Your task to perform on an android device: toggle show notifications on the lock screen Image 0: 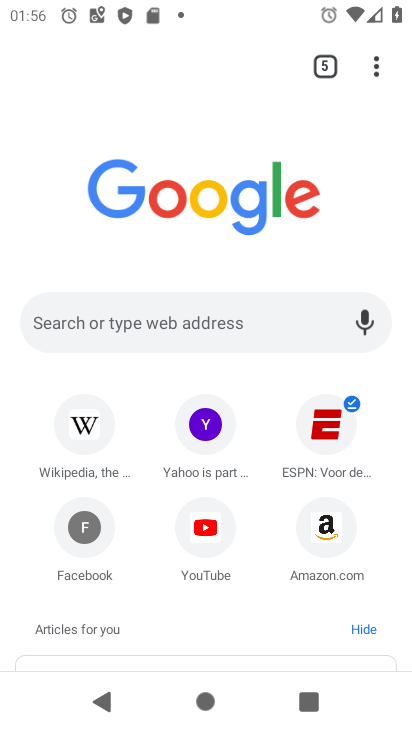
Step 0: press home button
Your task to perform on an android device: toggle show notifications on the lock screen Image 1: 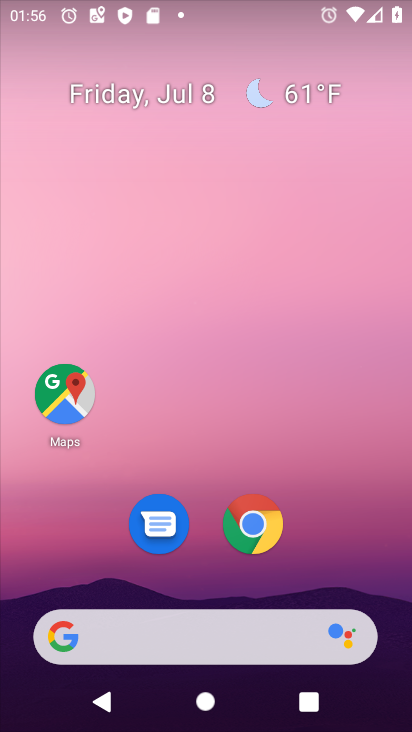
Step 1: drag from (238, 440) to (227, 0)
Your task to perform on an android device: toggle show notifications on the lock screen Image 2: 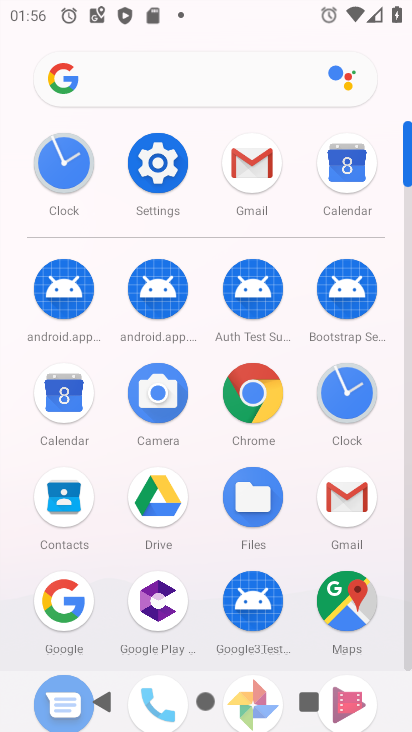
Step 2: click (179, 163)
Your task to perform on an android device: toggle show notifications on the lock screen Image 3: 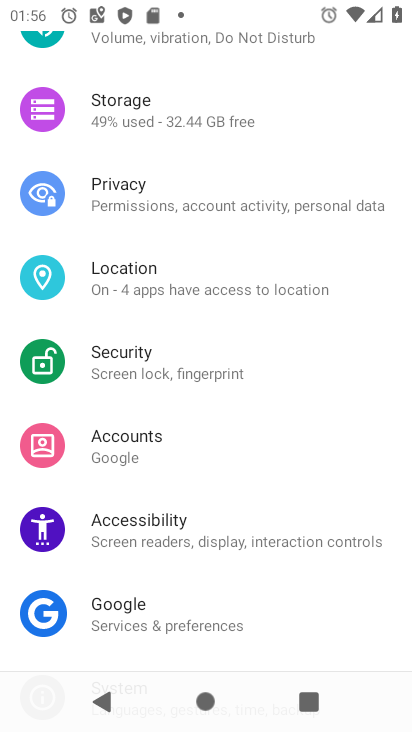
Step 3: drag from (193, 196) to (246, 515)
Your task to perform on an android device: toggle show notifications on the lock screen Image 4: 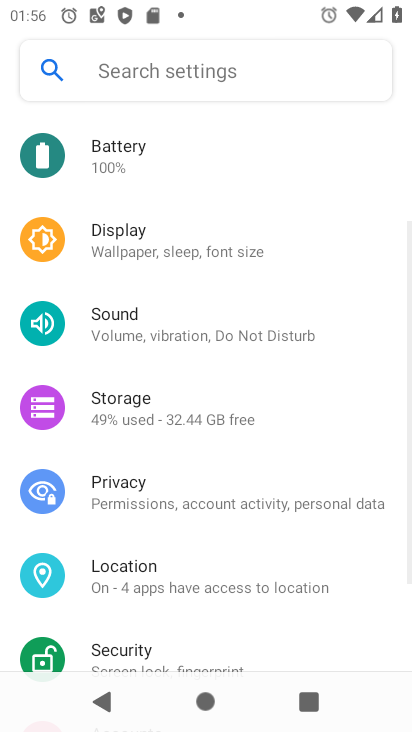
Step 4: drag from (210, 185) to (253, 470)
Your task to perform on an android device: toggle show notifications on the lock screen Image 5: 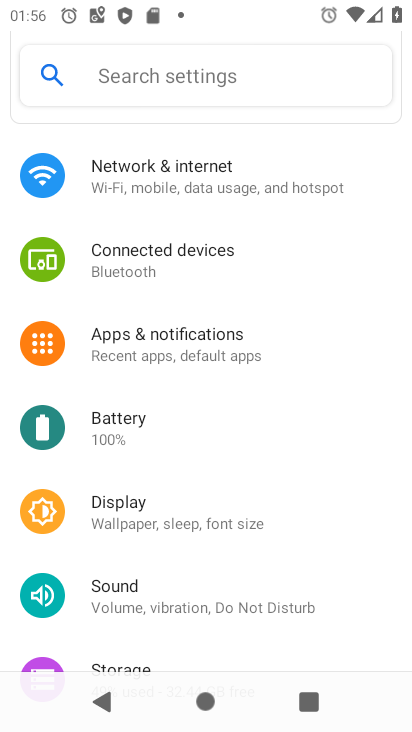
Step 5: click (239, 185)
Your task to perform on an android device: toggle show notifications on the lock screen Image 6: 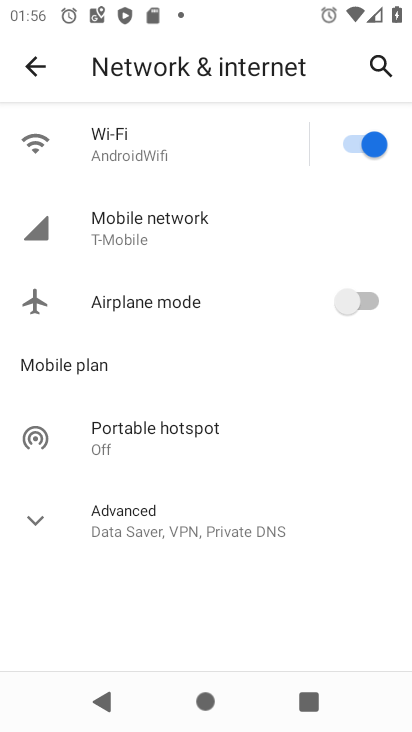
Step 6: click (36, 68)
Your task to perform on an android device: toggle show notifications on the lock screen Image 7: 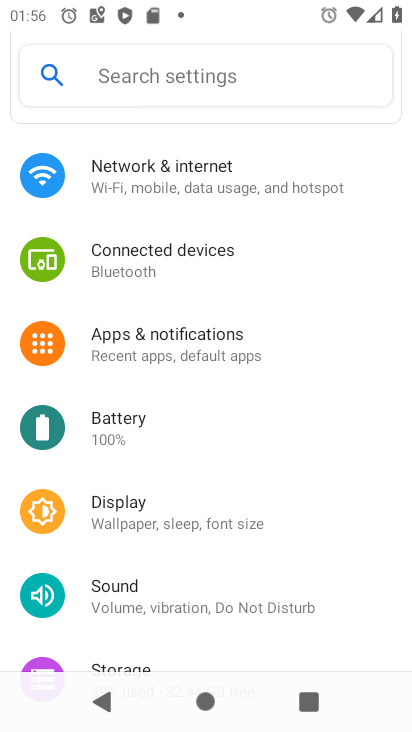
Step 7: click (214, 356)
Your task to perform on an android device: toggle show notifications on the lock screen Image 8: 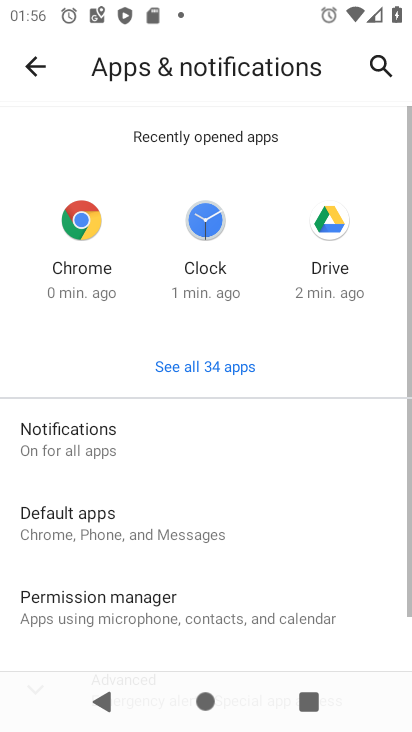
Step 8: click (112, 432)
Your task to perform on an android device: toggle show notifications on the lock screen Image 9: 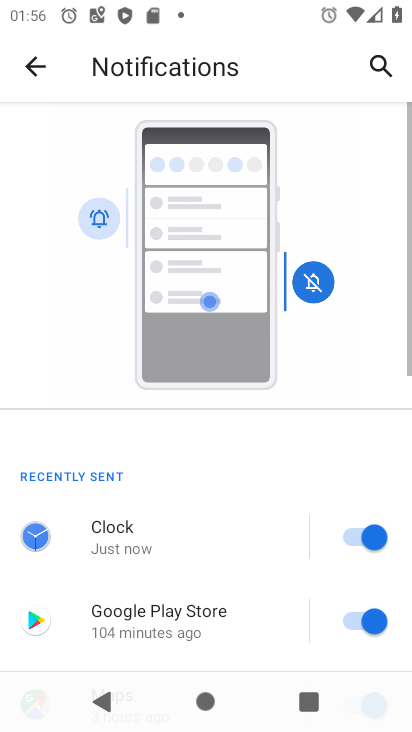
Step 9: drag from (270, 500) to (287, 51)
Your task to perform on an android device: toggle show notifications on the lock screen Image 10: 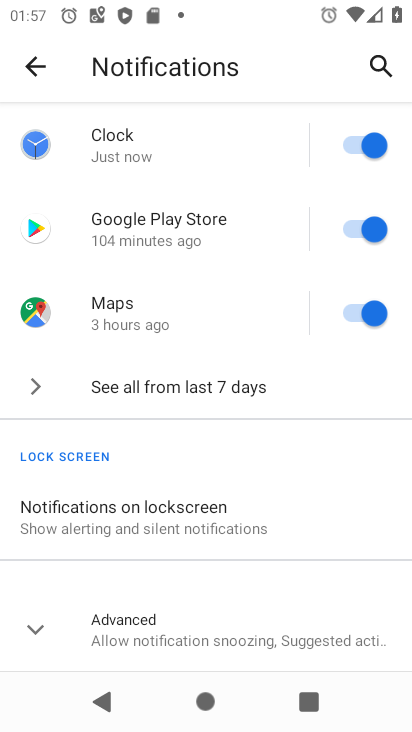
Step 10: click (210, 516)
Your task to perform on an android device: toggle show notifications on the lock screen Image 11: 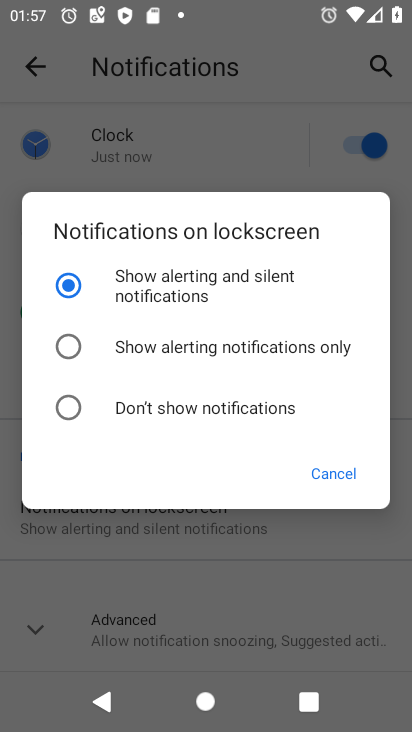
Step 11: click (59, 394)
Your task to perform on an android device: toggle show notifications on the lock screen Image 12: 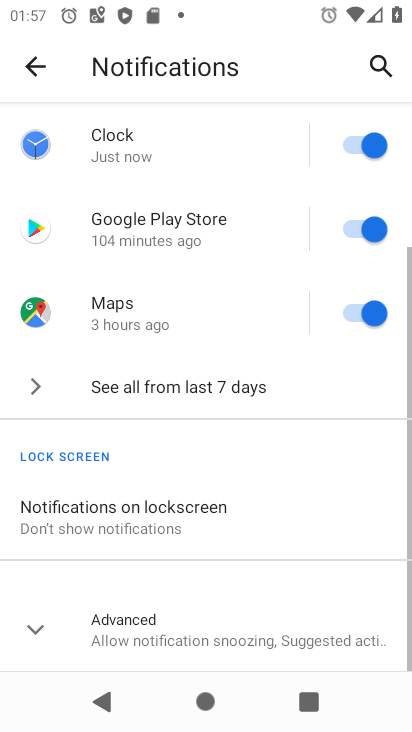
Step 12: task complete